Your task to perform on an android device: turn off improve location accuracy Image 0: 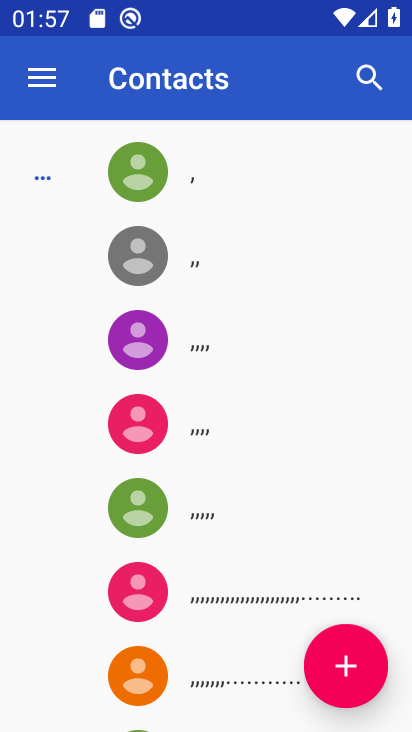
Step 0: press home button
Your task to perform on an android device: turn off improve location accuracy Image 1: 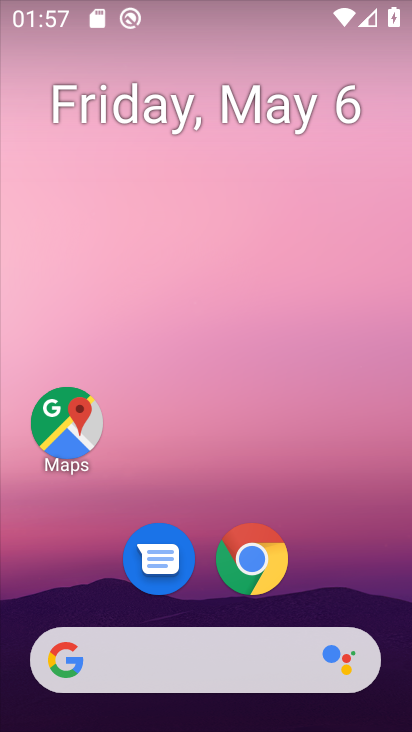
Step 1: drag from (283, 624) to (280, 53)
Your task to perform on an android device: turn off improve location accuracy Image 2: 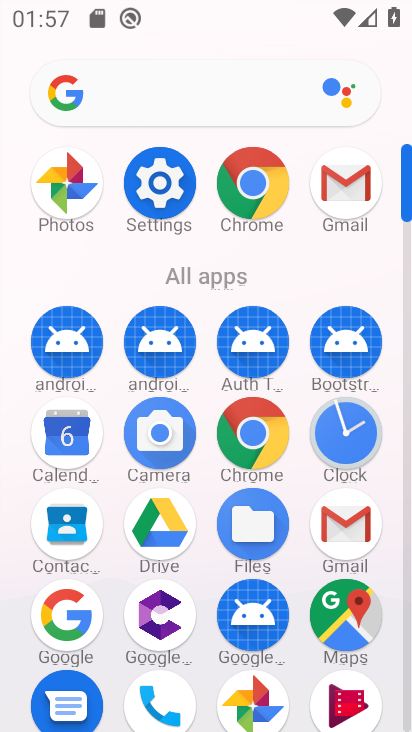
Step 2: click (165, 194)
Your task to perform on an android device: turn off improve location accuracy Image 3: 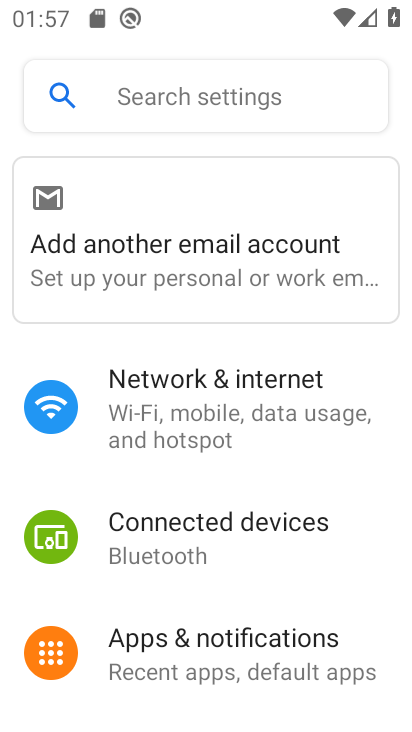
Step 3: drag from (281, 686) to (328, 182)
Your task to perform on an android device: turn off improve location accuracy Image 4: 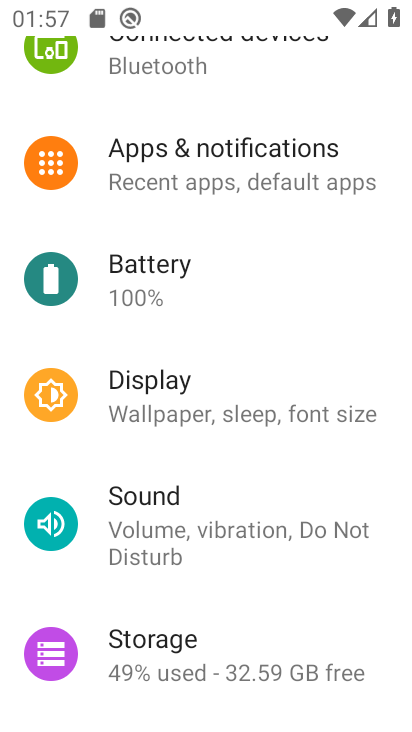
Step 4: drag from (233, 649) to (272, 94)
Your task to perform on an android device: turn off improve location accuracy Image 5: 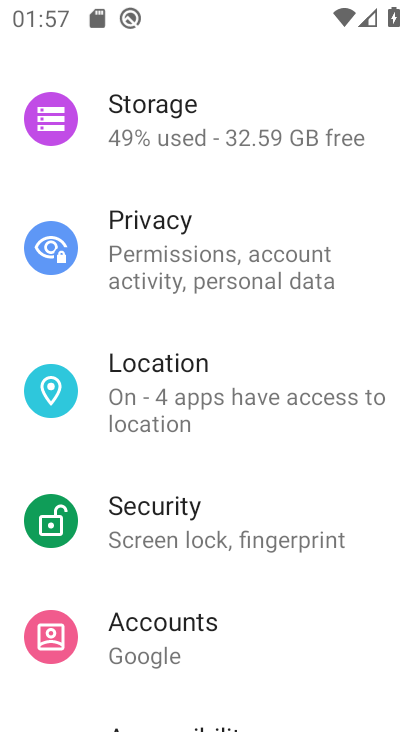
Step 5: click (247, 388)
Your task to perform on an android device: turn off improve location accuracy Image 6: 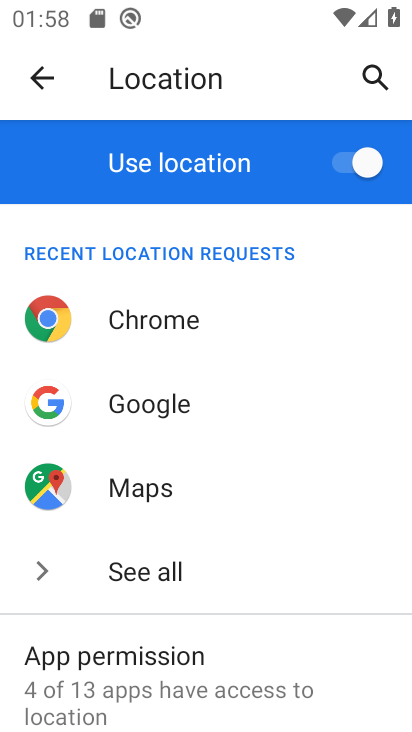
Step 6: drag from (287, 686) to (294, 136)
Your task to perform on an android device: turn off improve location accuracy Image 7: 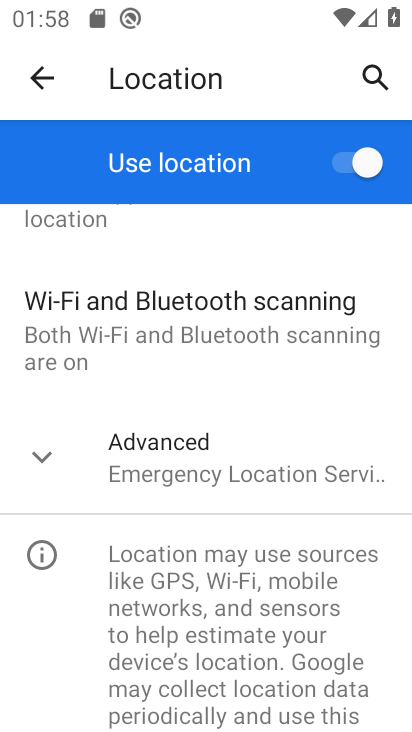
Step 7: click (287, 475)
Your task to perform on an android device: turn off improve location accuracy Image 8: 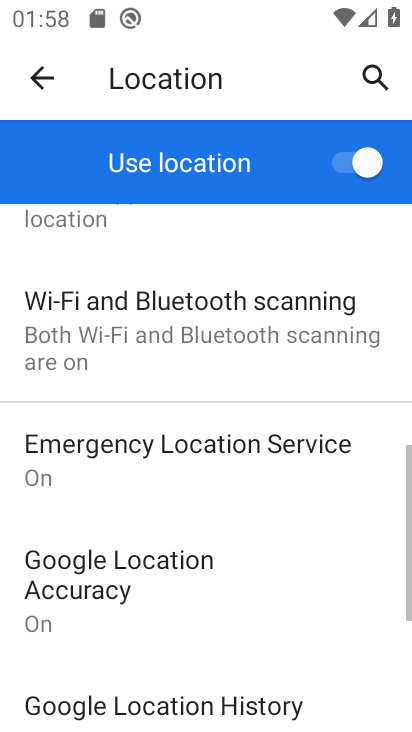
Step 8: drag from (299, 708) to (298, 143)
Your task to perform on an android device: turn off improve location accuracy Image 9: 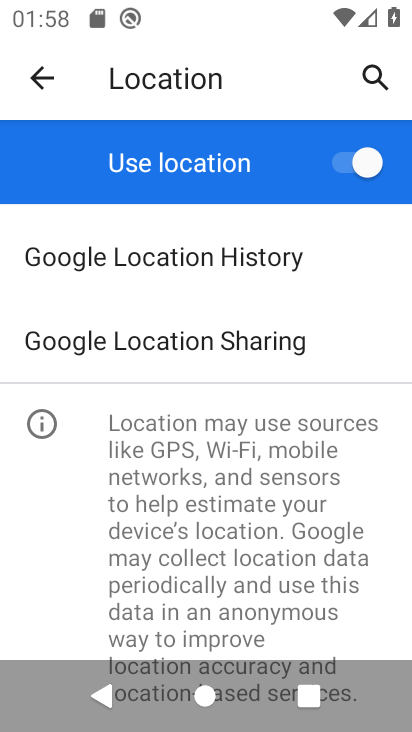
Step 9: drag from (305, 337) to (296, 639)
Your task to perform on an android device: turn off improve location accuracy Image 10: 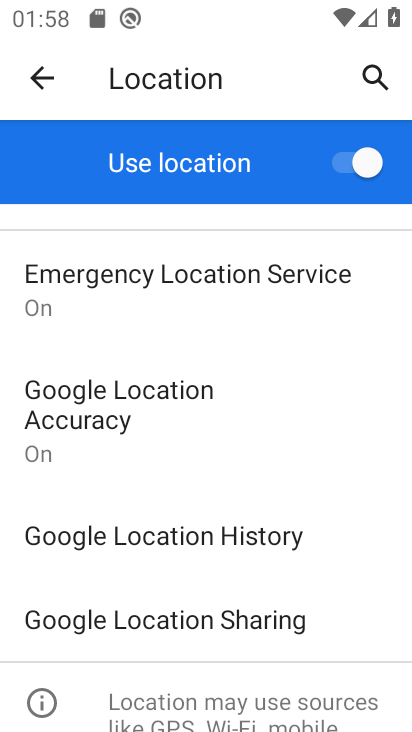
Step 10: click (136, 425)
Your task to perform on an android device: turn off improve location accuracy Image 11: 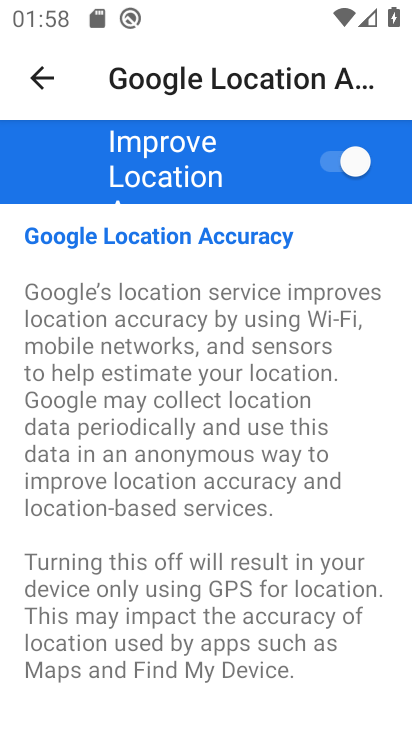
Step 11: click (335, 164)
Your task to perform on an android device: turn off improve location accuracy Image 12: 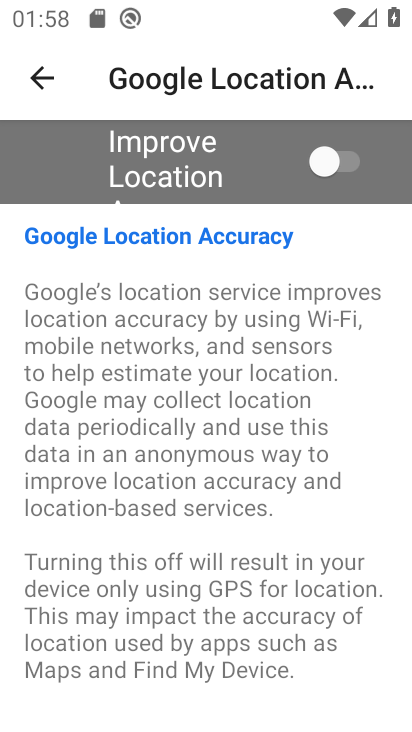
Step 12: task complete